Your task to perform on an android device: Show me the alarms in the clock app Image 0: 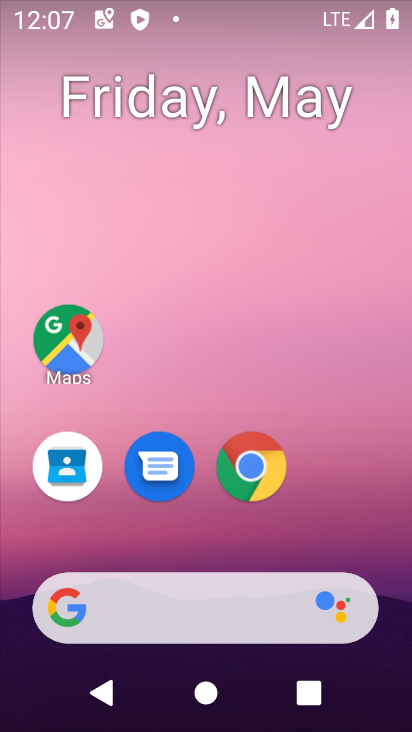
Step 0: drag from (213, 556) to (177, 84)
Your task to perform on an android device: Show me the alarms in the clock app Image 1: 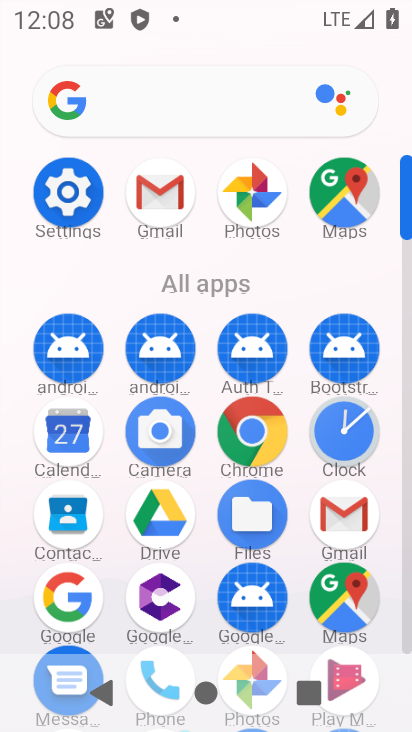
Step 1: click (352, 445)
Your task to perform on an android device: Show me the alarms in the clock app Image 2: 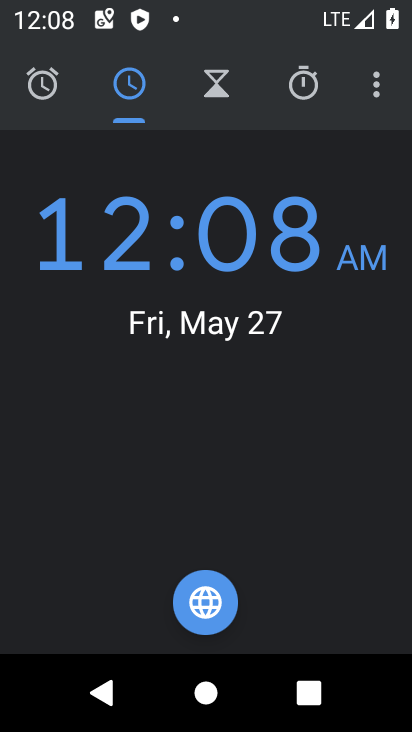
Step 2: click (54, 87)
Your task to perform on an android device: Show me the alarms in the clock app Image 3: 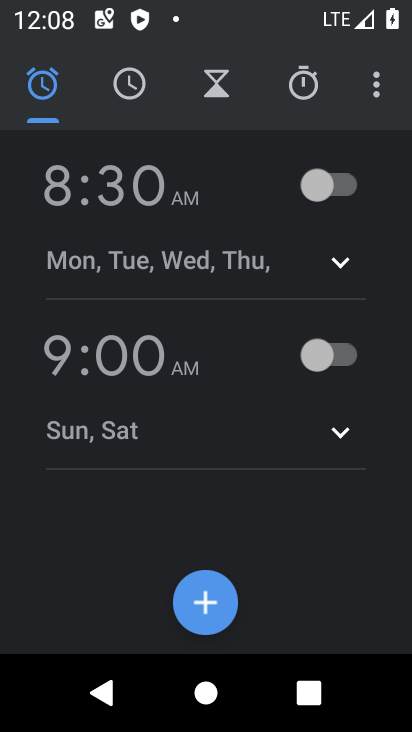
Step 3: task complete